Your task to perform on an android device: turn on priority inbox in the gmail app Image 0: 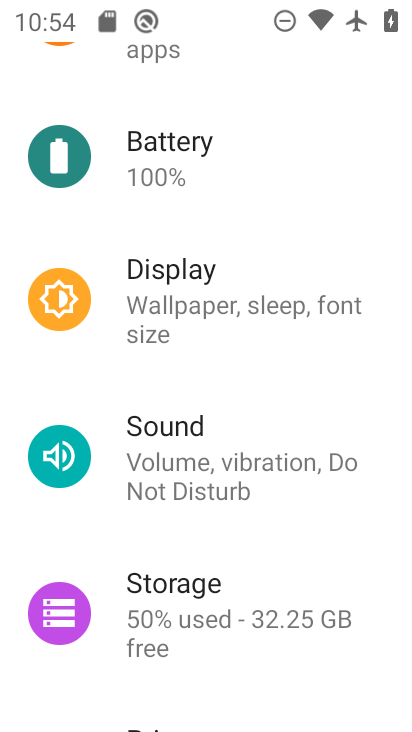
Step 0: press home button
Your task to perform on an android device: turn on priority inbox in the gmail app Image 1: 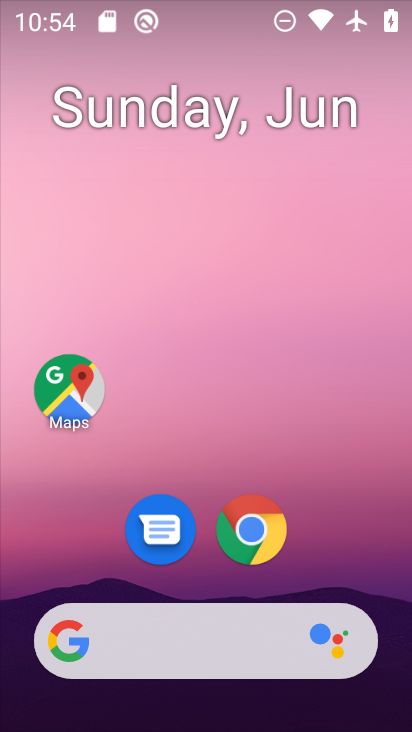
Step 1: drag from (403, 647) to (348, 69)
Your task to perform on an android device: turn on priority inbox in the gmail app Image 2: 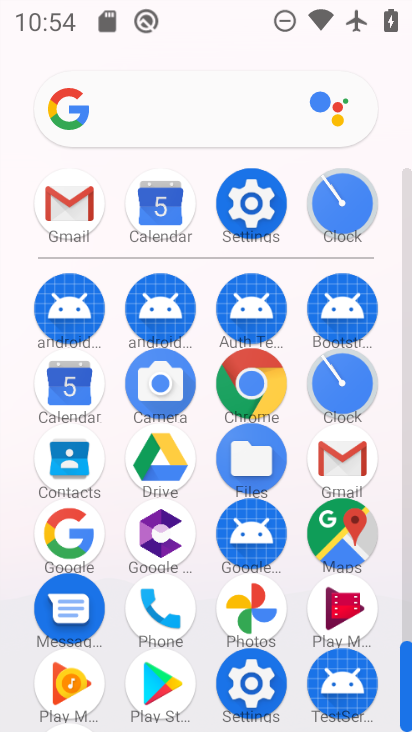
Step 2: click (342, 458)
Your task to perform on an android device: turn on priority inbox in the gmail app Image 3: 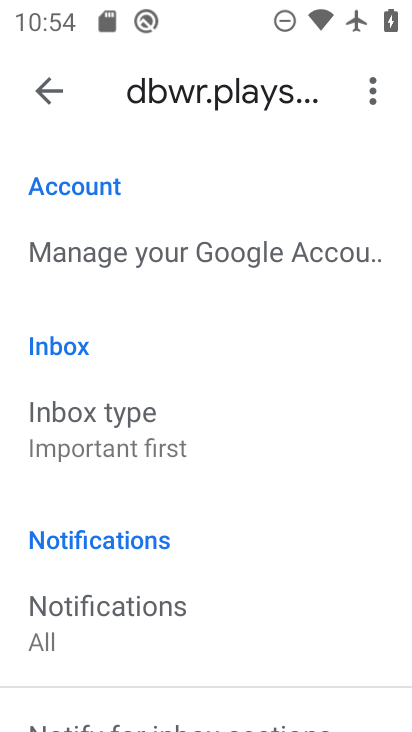
Step 3: click (111, 435)
Your task to perform on an android device: turn on priority inbox in the gmail app Image 4: 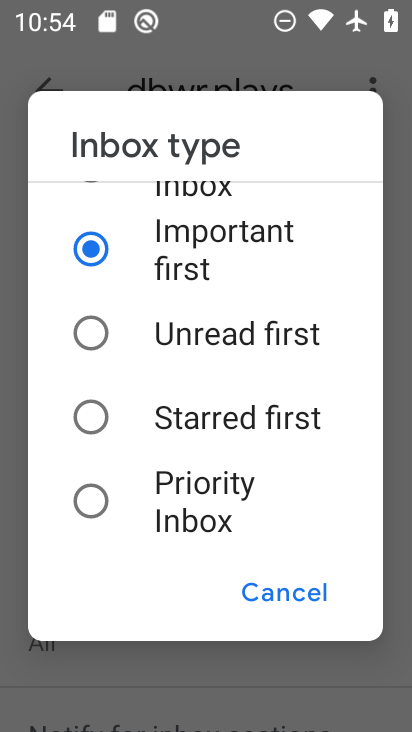
Step 4: click (101, 500)
Your task to perform on an android device: turn on priority inbox in the gmail app Image 5: 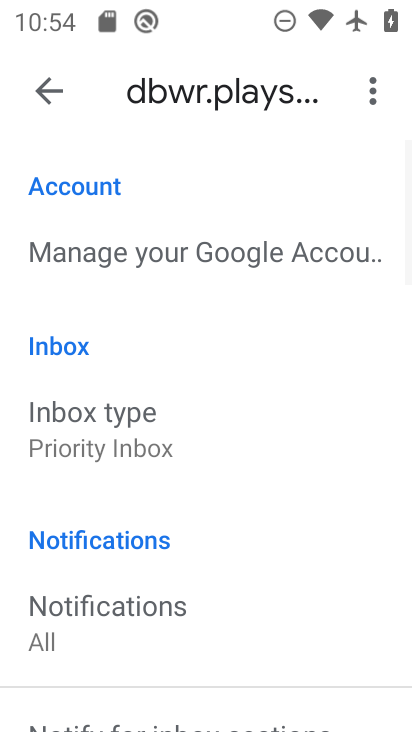
Step 5: task complete